Your task to perform on an android device: delete the emails in spam in the gmail app Image 0: 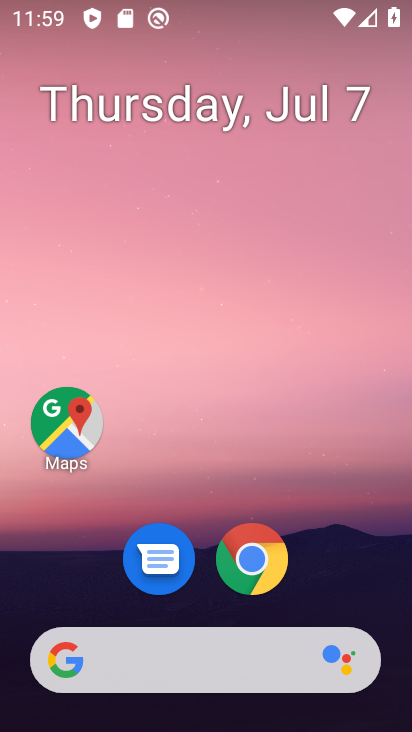
Step 0: drag from (241, 623) to (242, 32)
Your task to perform on an android device: delete the emails in spam in the gmail app Image 1: 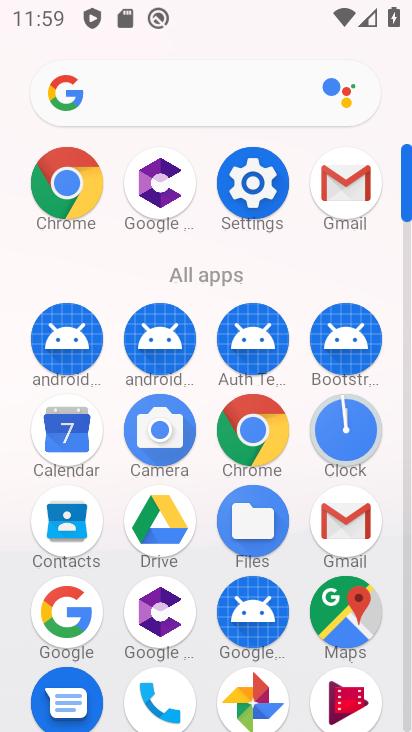
Step 1: click (356, 546)
Your task to perform on an android device: delete the emails in spam in the gmail app Image 2: 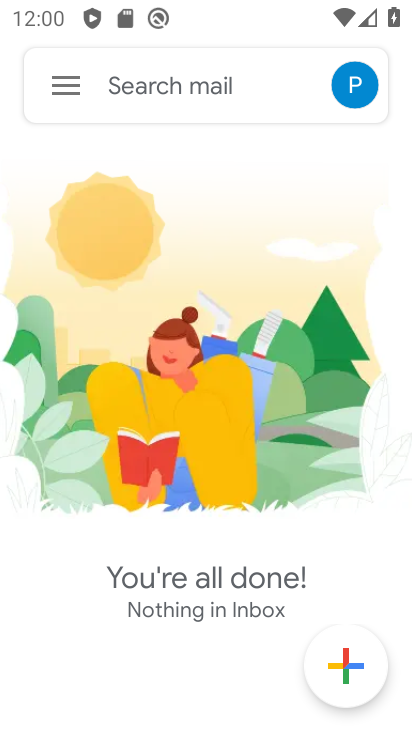
Step 2: click (66, 86)
Your task to perform on an android device: delete the emails in spam in the gmail app Image 3: 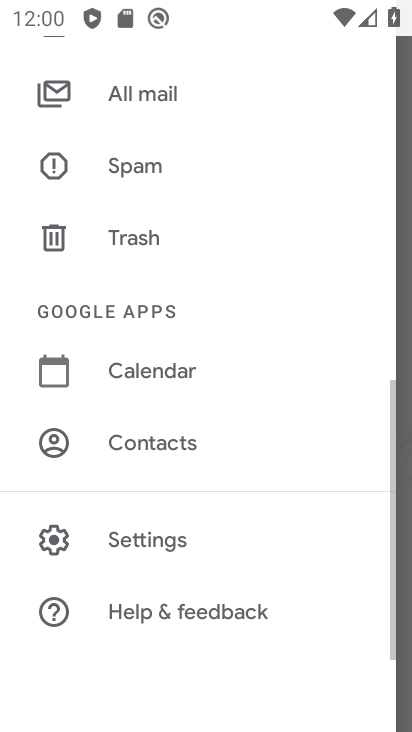
Step 3: click (106, 171)
Your task to perform on an android device: delete the emails in spam in the gmail app Image 4: 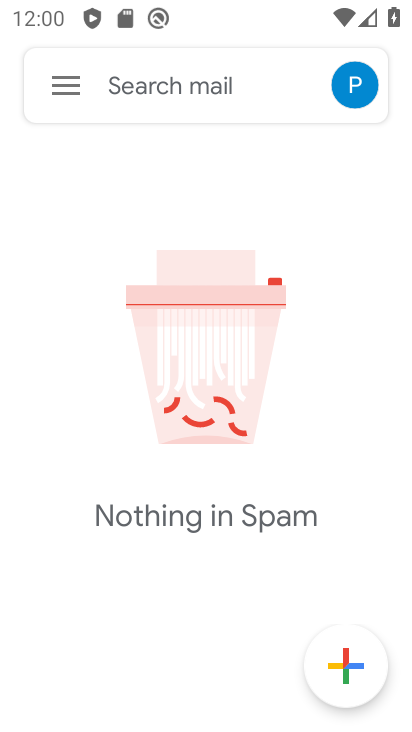
Step 4: task complete